Your task to perform on an android device: open sync settings in chrome Image 0: 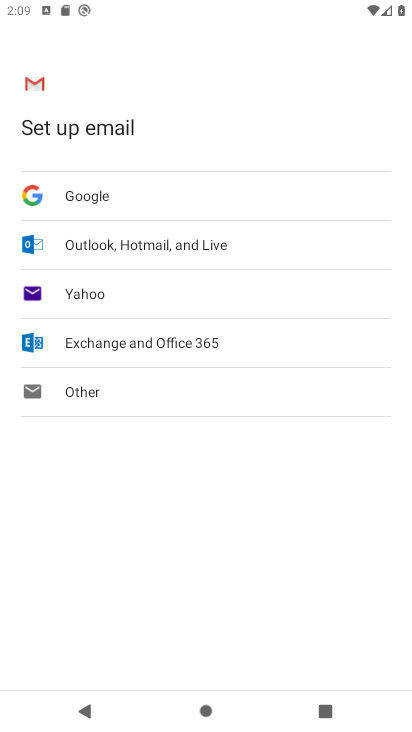
Step 0: press home button
Your task to perform on an android device: open sync settings in chrome Image 1: 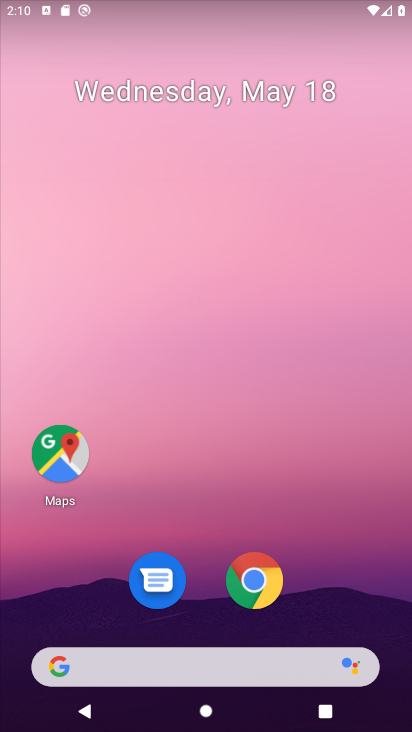
Step 1: drag from (196, 636) to (308, 45)
Your task to perform on an android device: open sync settings in chrome Image 2: 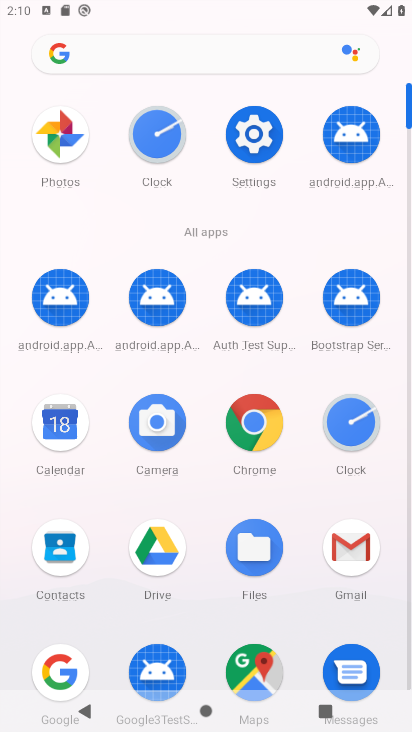
Step 2: click (257, 409)
Your task to perform on an android device: open sync settings in chrome Image 3: 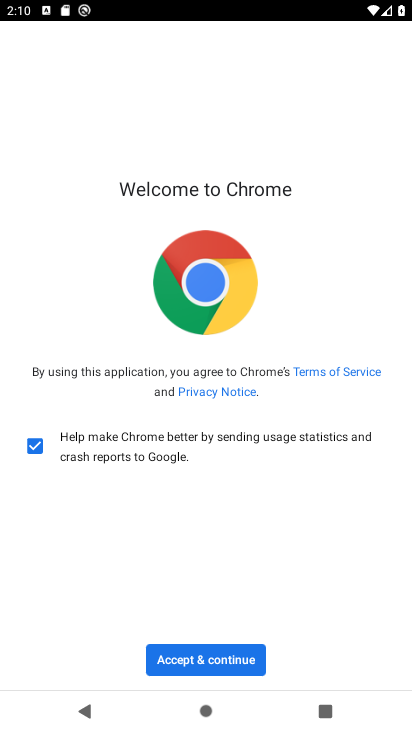
Step 3: click (216, 646)
Your task to perform on an android device: open sync settings in chrome Image 4: 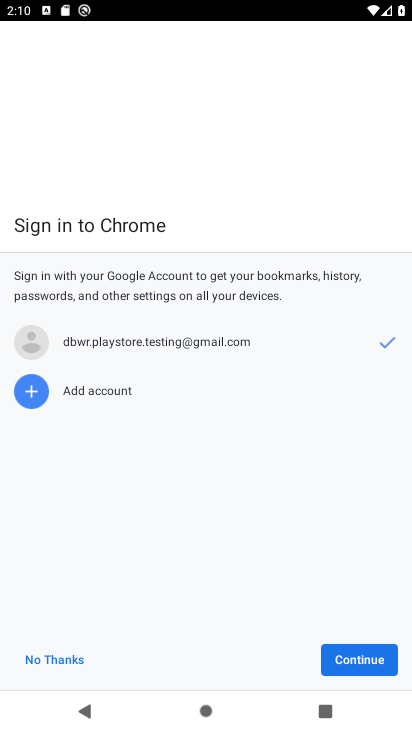
Step 4: click (33, 670)
Your task to perform on an android device: open sync settings in chrome Image 5: 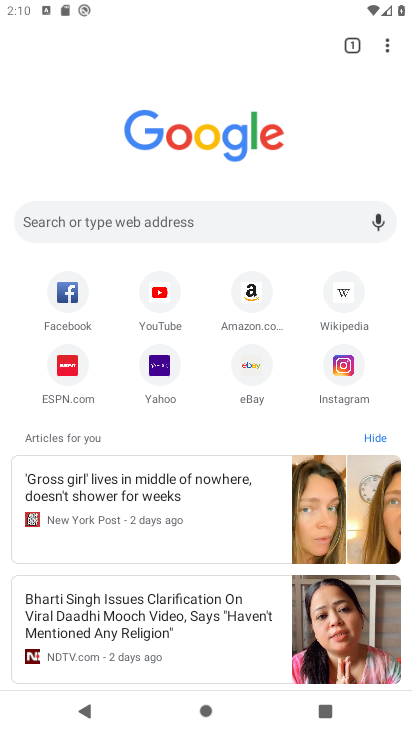
Step 5: click (388, 49)
Your task to perform on an android device: open sync settings in chrome Image 6: 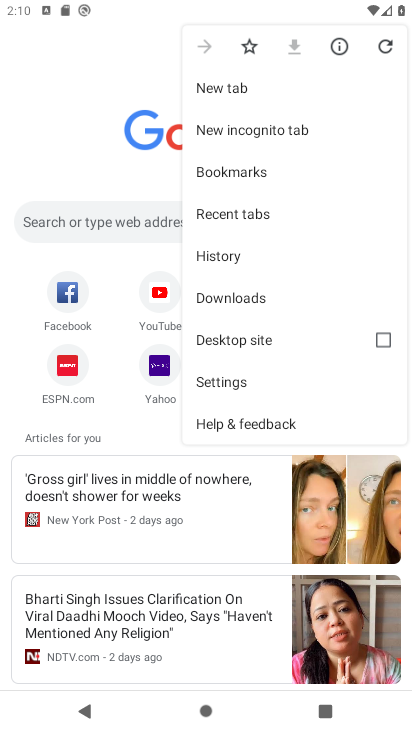
Step 6: click (237, 377)
Your task to perform on an android device: open sync settings in chrome Image 7: 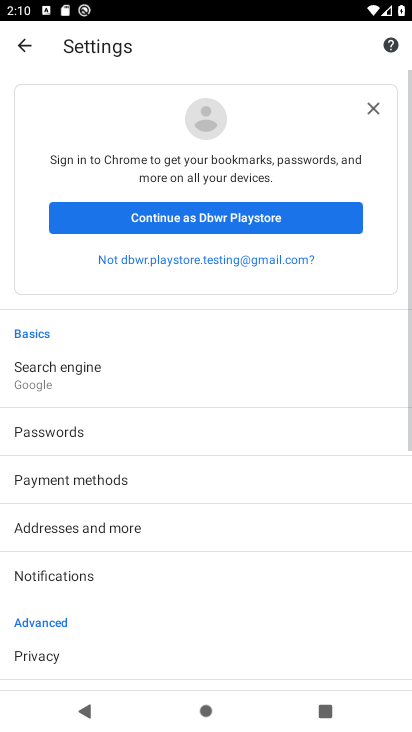
Step 7: drag from (178, 549) to (353, 107)
Your task to perform on an android device: open sync settings in chrome Image 8: 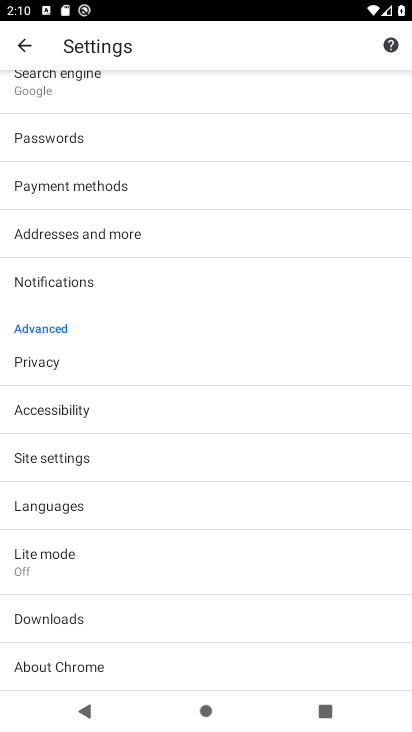
Step 8: click (107, 462)
Your task to perform on an android device: open sync settings in chrome Image 9: 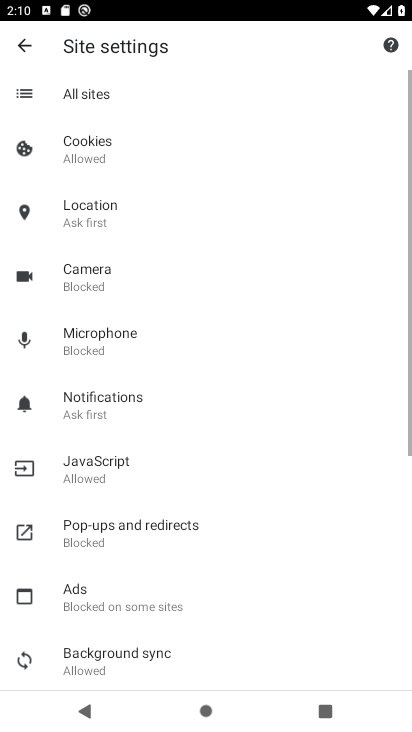
Step 9: drag from (202, 578) to (278, 92)
Your task to perform on an android device: open sync settings in chrome Image 10: 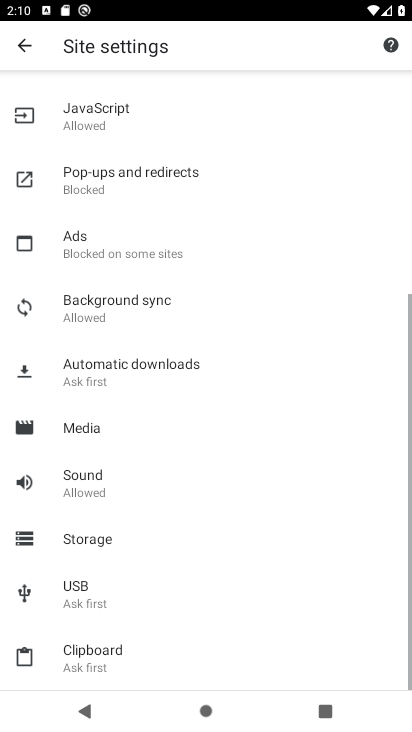
Step 10: drag from (188, 518) to (243, 171)
Your task to perform on an android device: open sync settings in chrome Image 11: 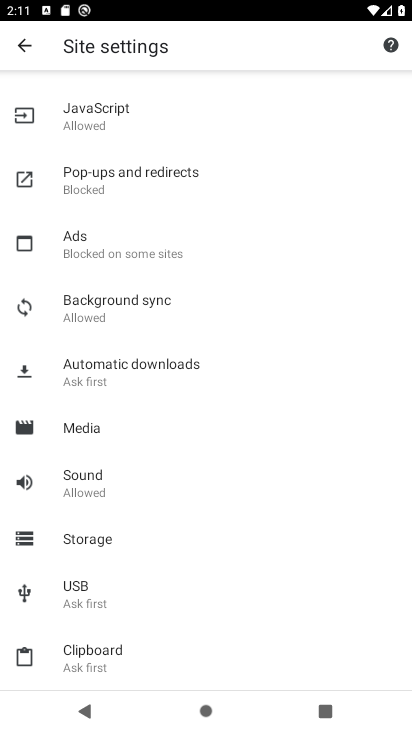
Step 11: click (192, 311)
Your task to perform on an android device: open sync settings in chrome Image 12: 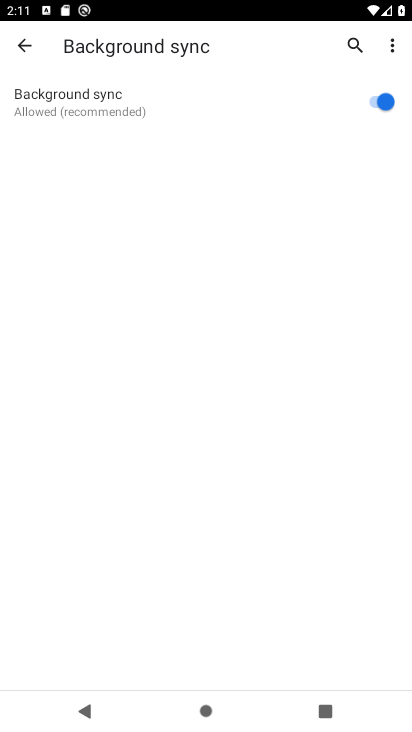
Step 12: task complete